Your task to perform on an android device: Open battery settings Image 0: 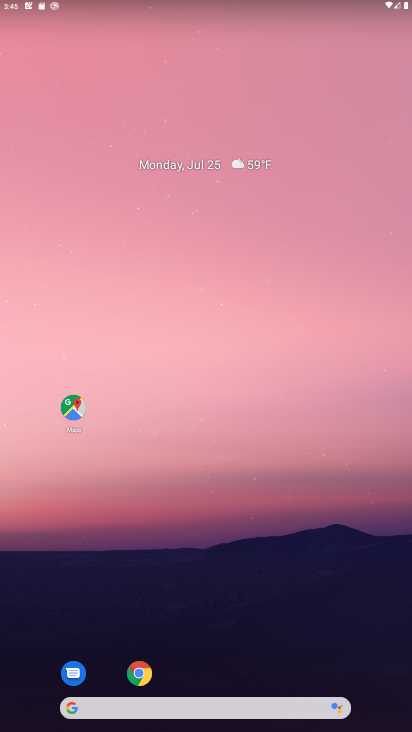
Step 0: drag from (300, 637) to (248, 203)
Your task to perform on an android device: Open battery settings Image 1: 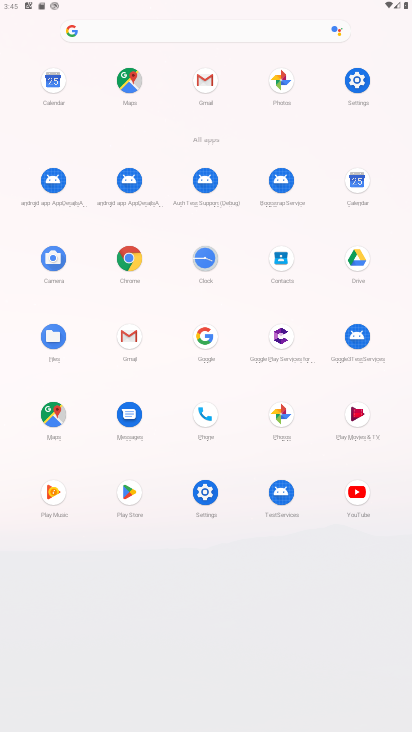
Step 1: click (208, 488)
Your task to perform on an android device: Open battery settings Image 2: 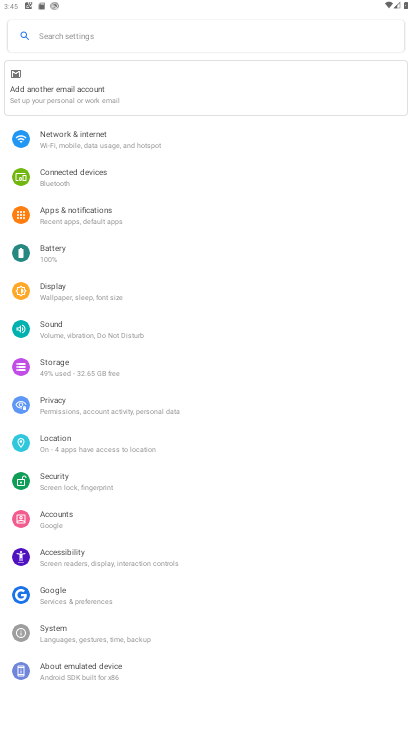
Step 2: click (67, 251)
Your task to perform on an android device: Open battery settings Image 3: 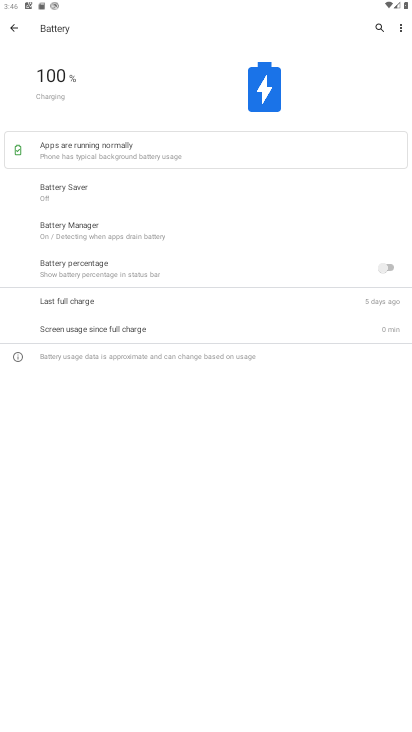
Step 3: task complete